Your task to perform on an android device: delete browsing data in the chrome app Image 0: 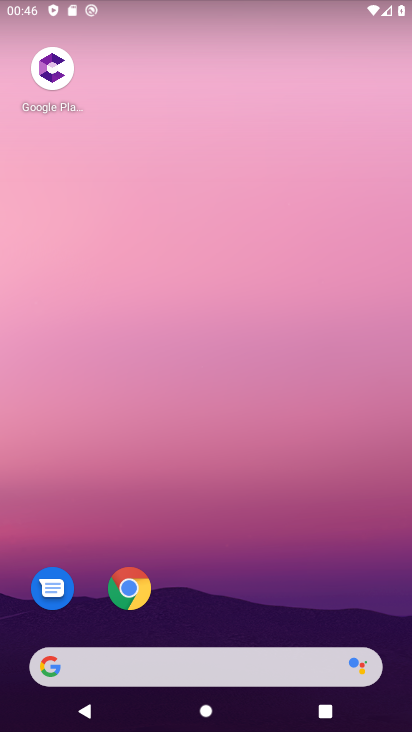
Step 0: click (127, 585)
Your task to perform on an android device: delete browsing data in the chrome app Image 1: 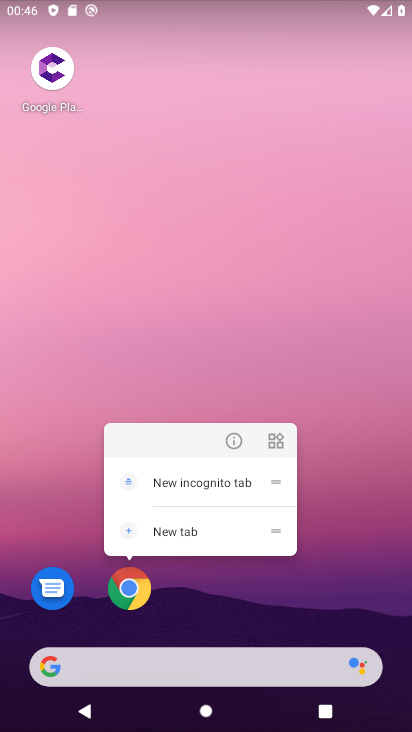
Step 1: click (134, 580)
Your task to perform on an android device: delete browsing data in the chrome app Image 2: 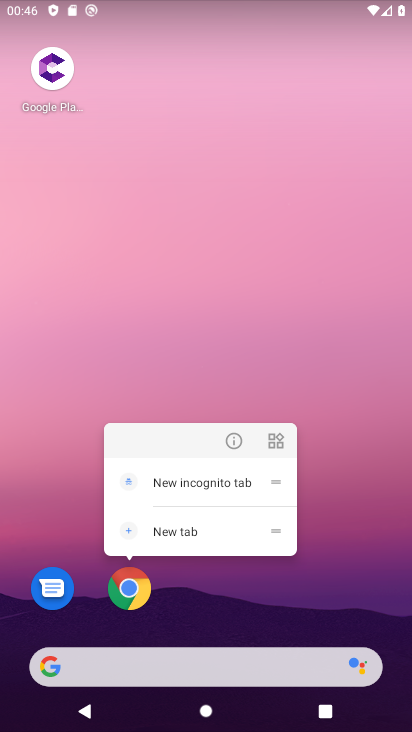
Step 2: click (134, 580)
Your task to perform on an android device: delete browsing data in the chrome app Image 3: 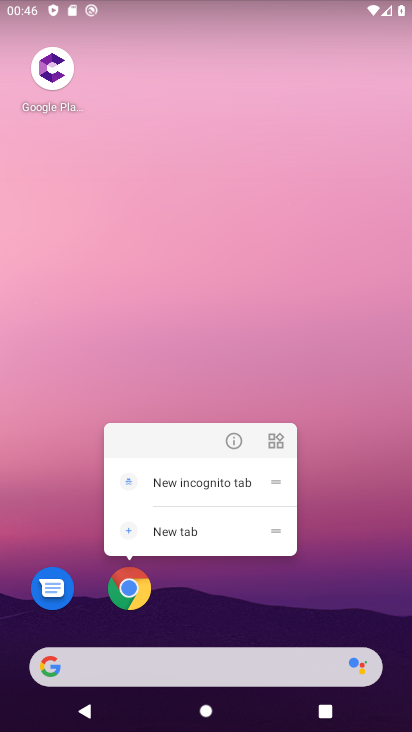
Step 3: click (132, 580)
Your task to perform on an android device: delete browsing data in the chrome app Image 4: 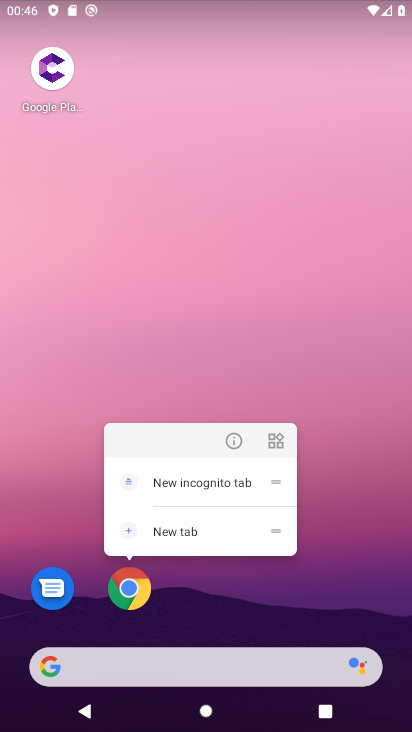
Step 4: click (131, 593)
Your task to perform on an android device: delete browsing data in the chrome app Image 5: 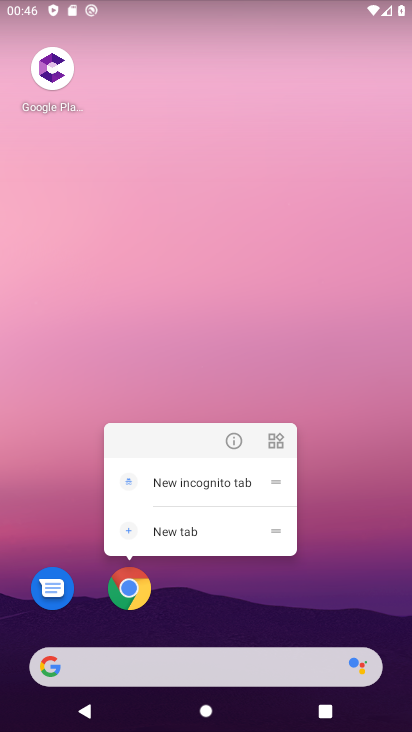
Step 5: click (131, 593)
Your task to perform on an android device: delete browsing data in the chrome app Image 6: 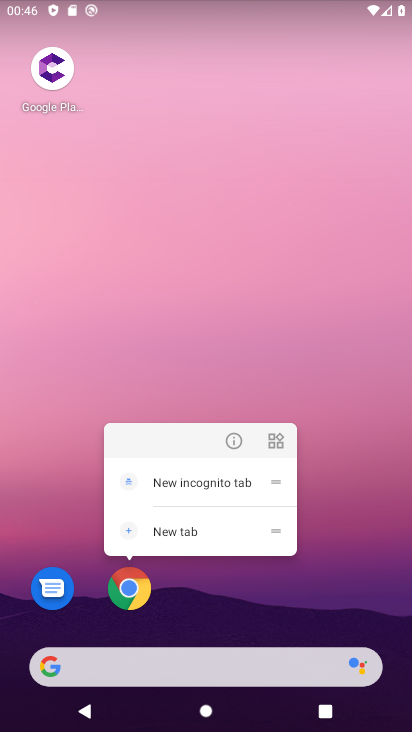
Step 6: click (123, 576)
Your task to perform on an android device: delete browsing data in the chrome app Image 7: 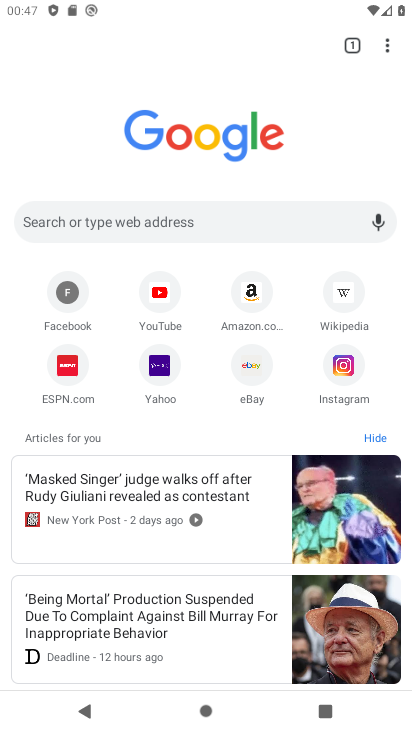
Step 7: task complete